Your task to perform on an android device: see sites visited before in the chrome app Image 0: 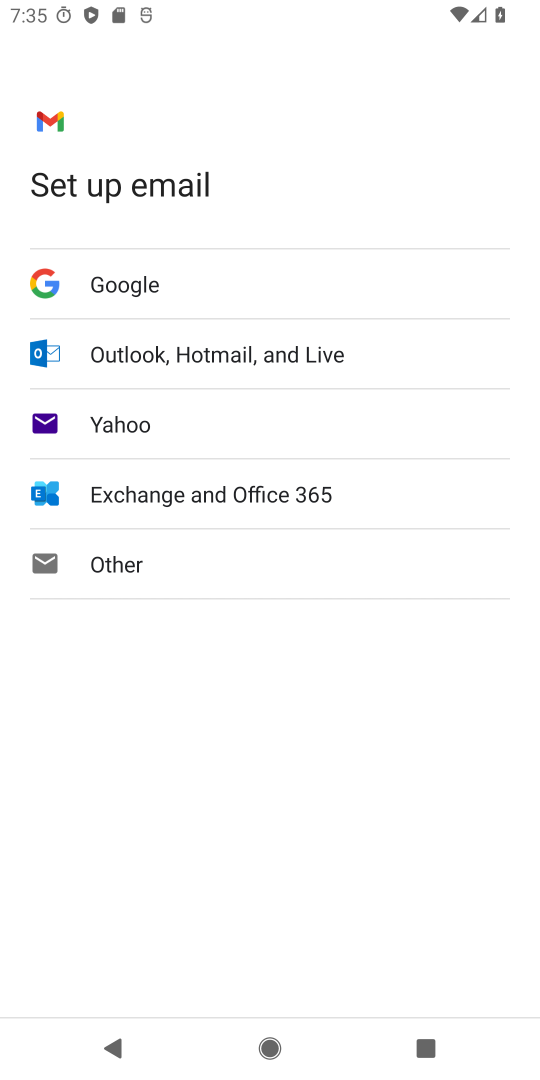
Step 0: press home button
Your task to perform on an android device: see sites visited before in the chrome app Image 1: 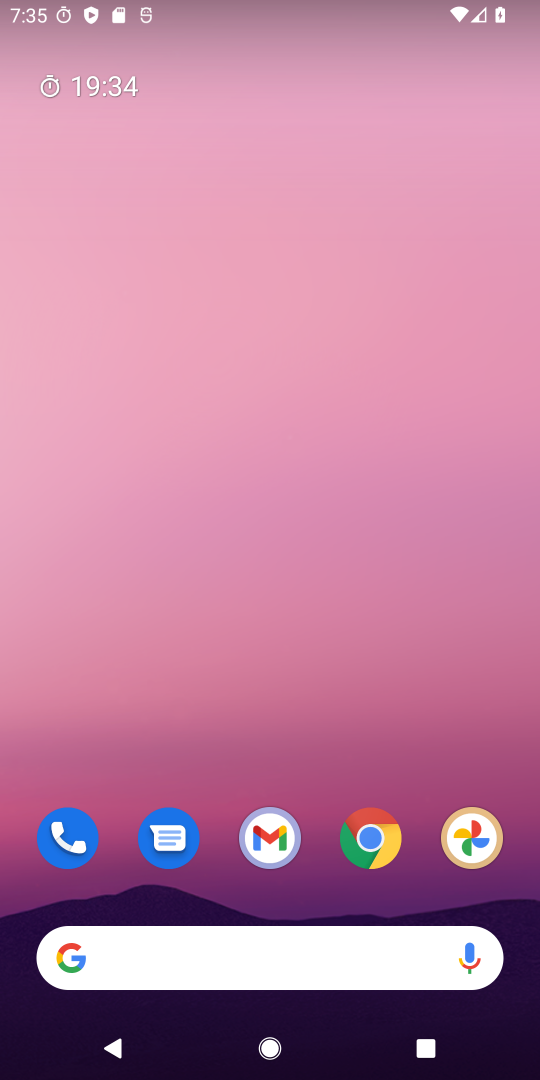
Step 1: drag from (324, 882) to (422, 65)
Your task to perform on an android device: see sites visited before in the chrome app Image 2: 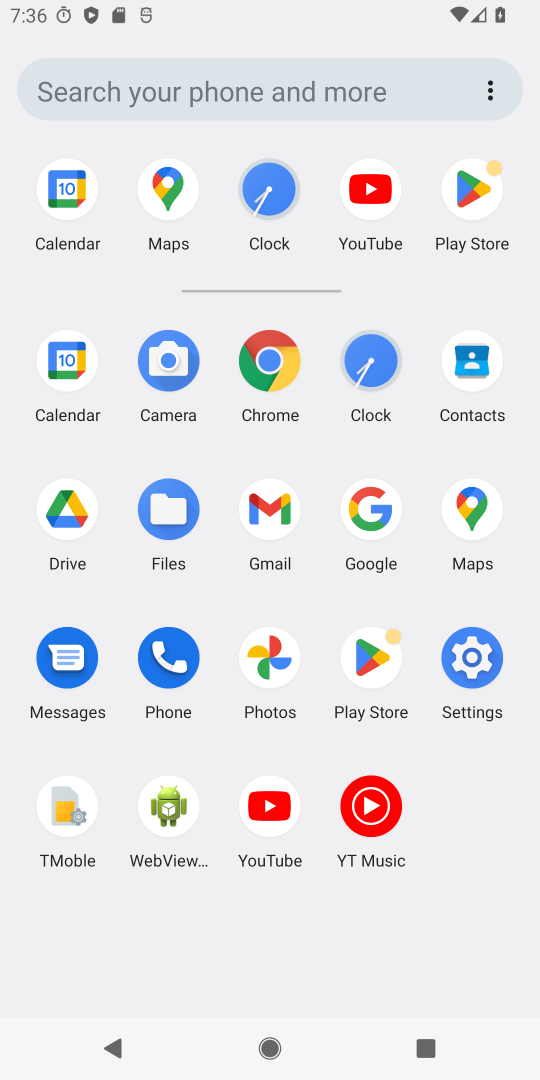
Step 2: click (271, 352)
Your task to perform on an android device: see sites visited before in the chrome app Image 3: 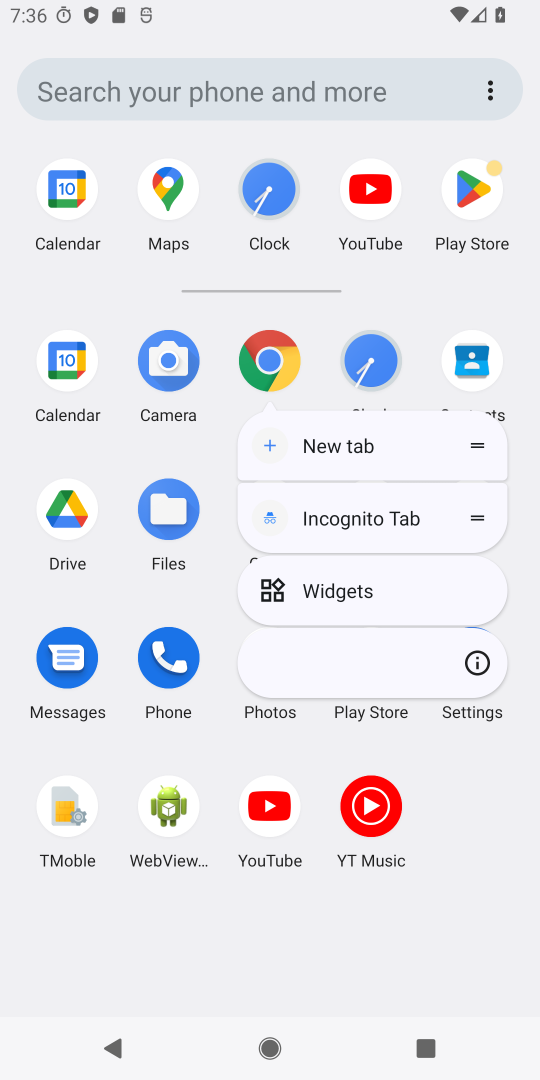
Step 3: click (261, 348)
Your task to perform on an android device: see sites visited before in the chrome app Image 4: 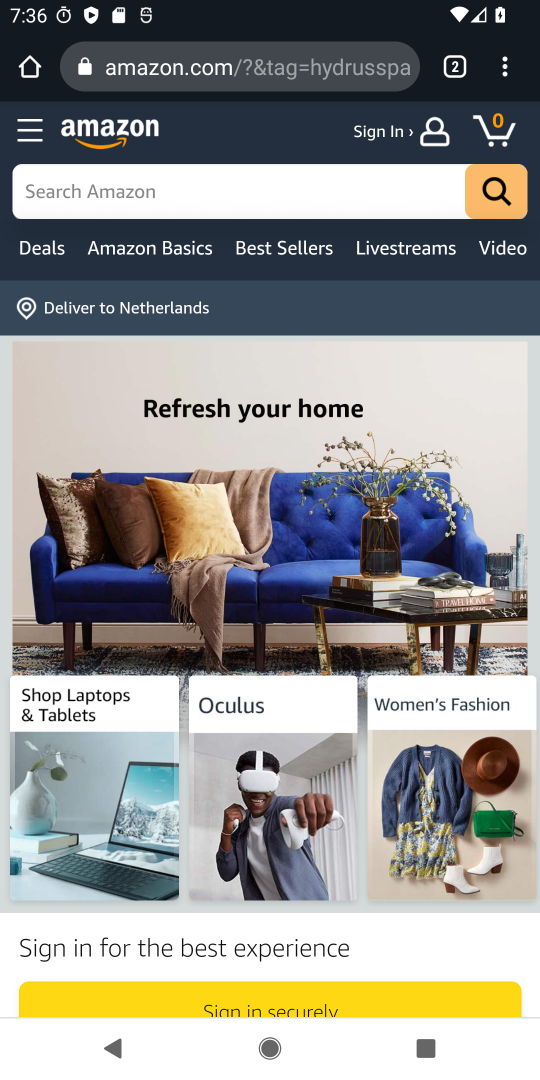
Step 4: drag from (510, 64) to (366, 370)
Your task to perform on an android device: see sites visited before in the chrome app Image 5: 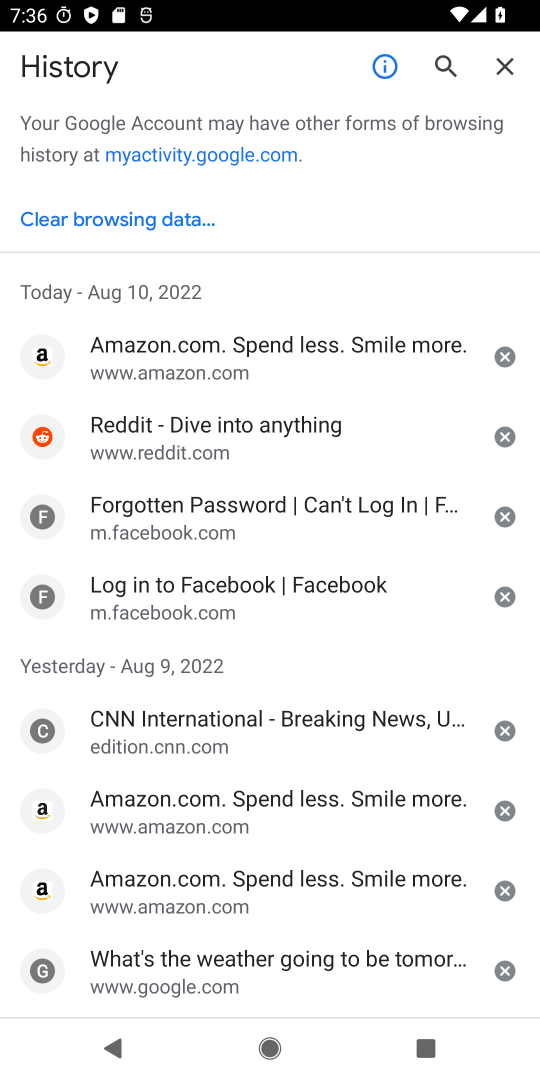
Step 5: click (286, 345)
Your task to perform on an android device: see sites visited before in the chrome app Image 6: 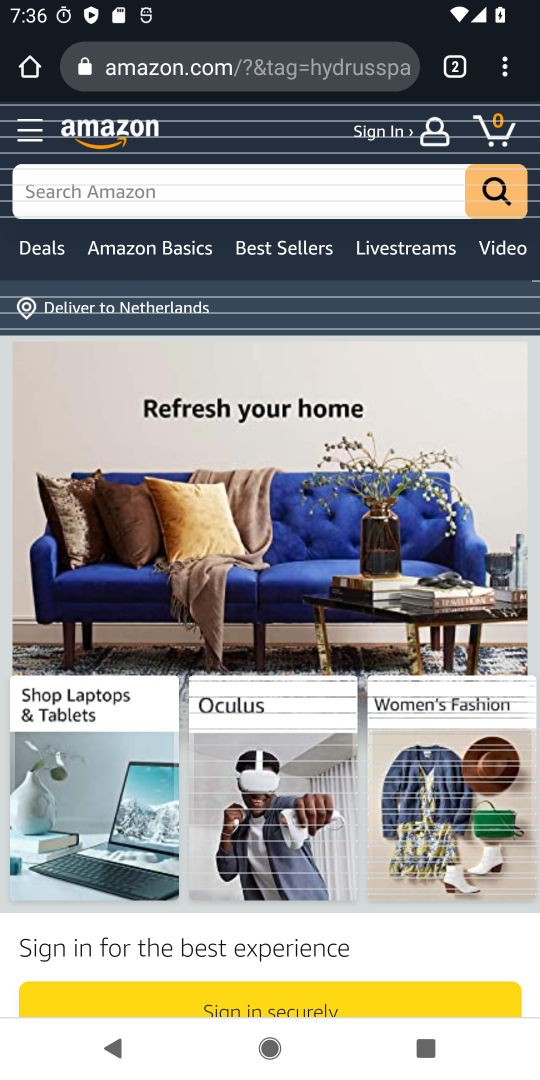
Step 6: task complete